Your task to perform on an android device: Go to Google Image 0: 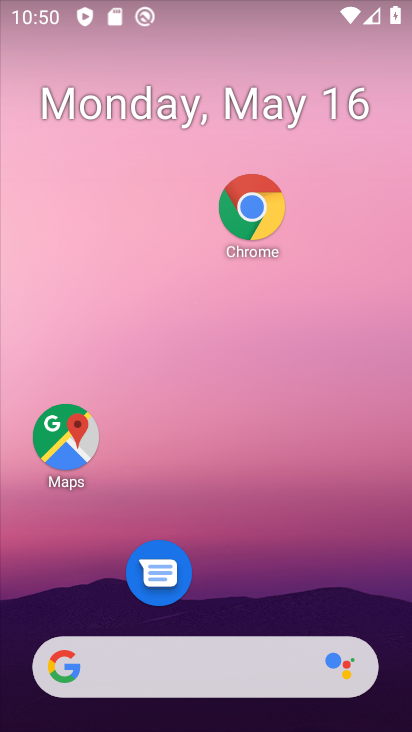
Step 0: drag from (243, 628) to (395, 74)
Your task to perform on an android device: Go to Google Image 1: 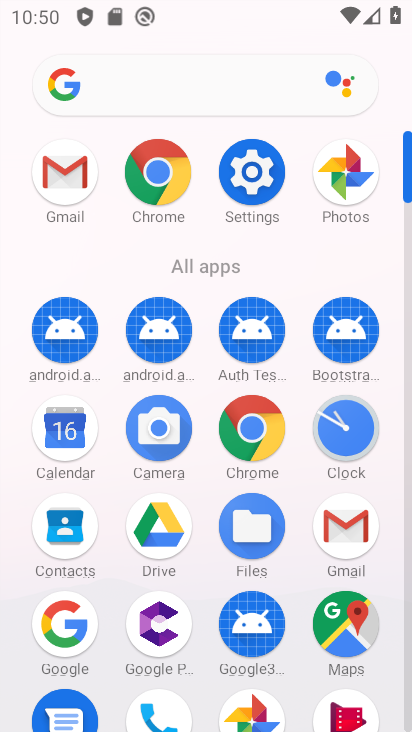
Step 1: click (262, 440)
Your task to perform on an android device: Go to Google Image 2: 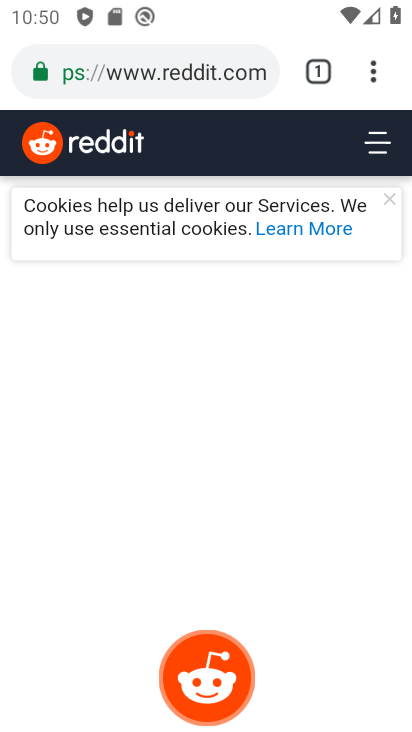
Step 2: task complete